Your task to perform on an android device: Open the map Image 0: 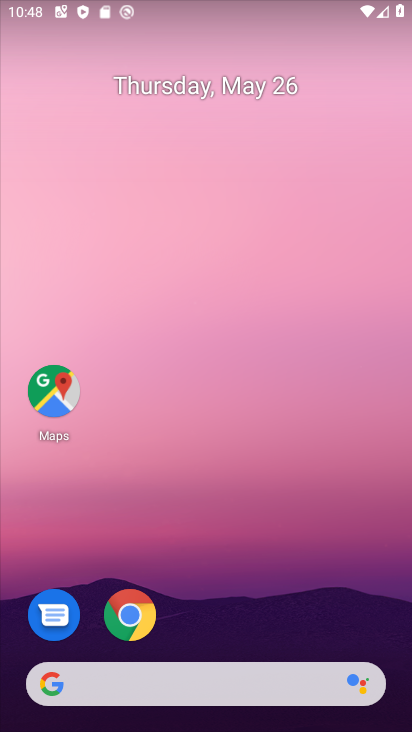
Step 0: click (61, 385)
Your task to perform on an android device: Open the map Image 1: 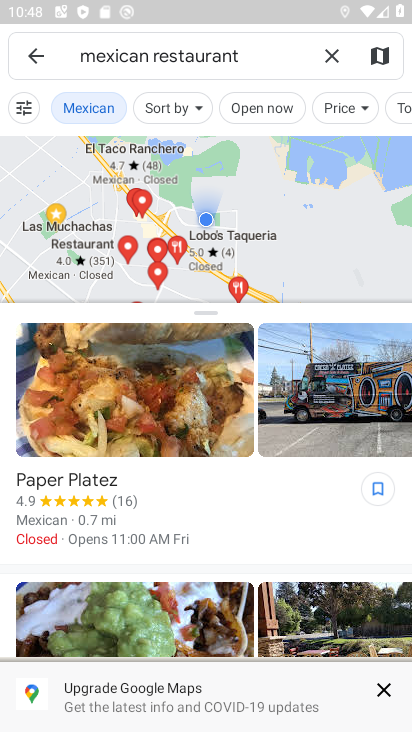
Step 1: task complete